Your task to perform on an android device: turn off javascript in the chrome app Image 0: 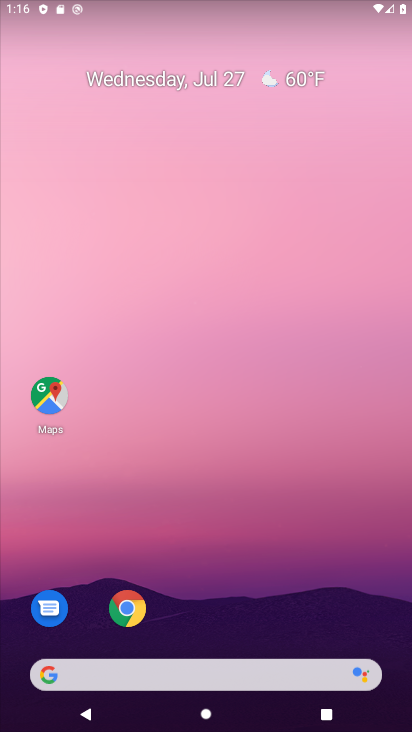
Step 0: click (138, 606)
Your task to perform on an android device: turn off javascript in the chrome app Image 1: 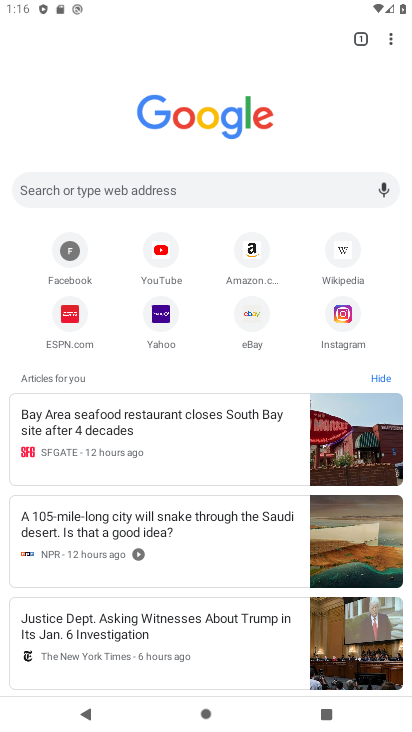
Step 1: click (388, 37)
Your task to perform on an android device: turn off javascript in the chrome app Image 2: 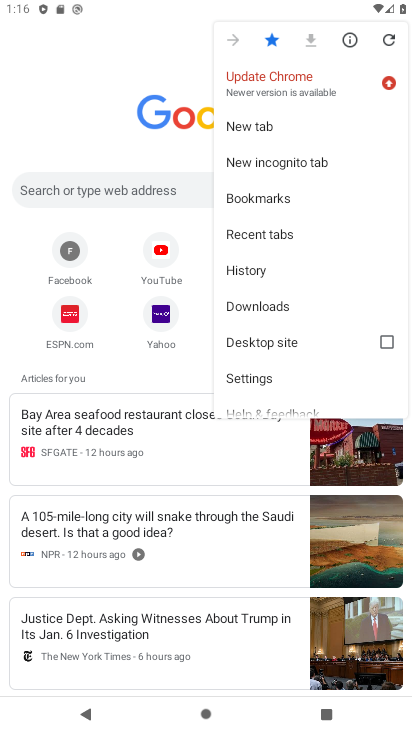
Step 2: click (264, 383)
Your task to perform on an android device: turn off javascript in the chrome app Image 3: 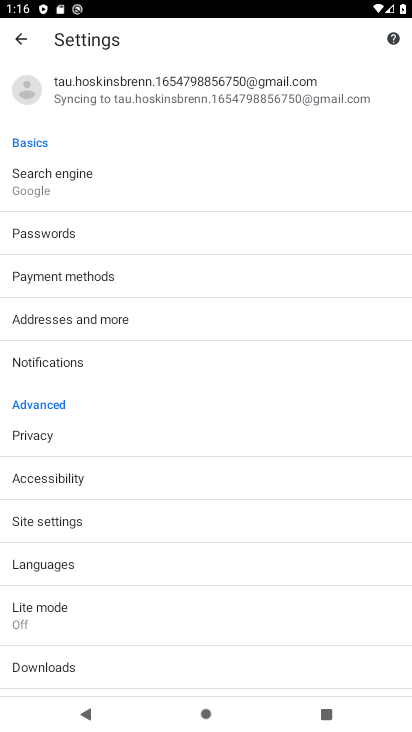
Step 3: click (59, 521)
Your task to perform on an android device: turn off javascript in the chrome app Image 4: 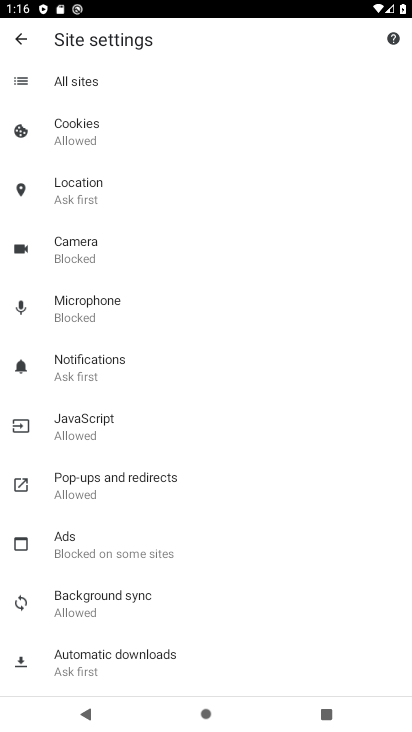
Step 4: click (78, 422)
Your task to perform on an android device: turn off javascript in the chrome app Image 5: 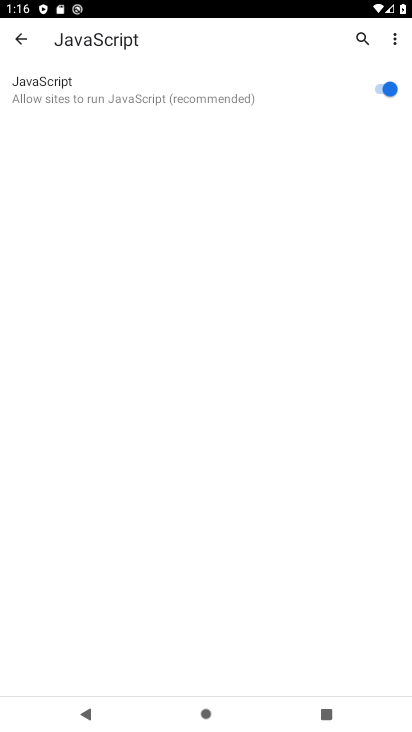
Step 5: click (380, 87)
Your task to perform on an android device: turn off javascript in the chrome app Image 6: 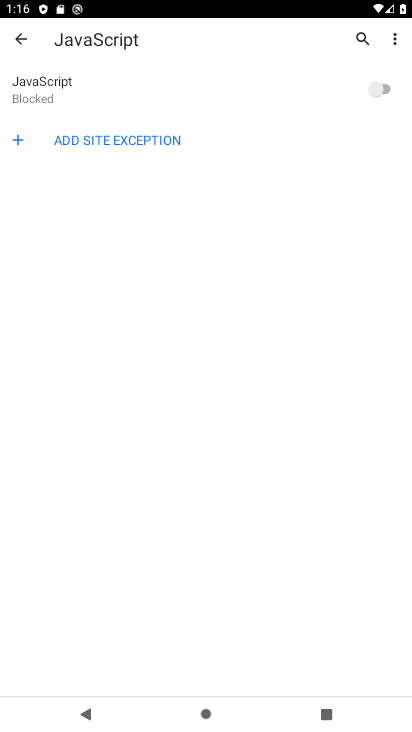
Step 6: task complete